Your task to perform on an android device: Turn off the flashlight Image 0: 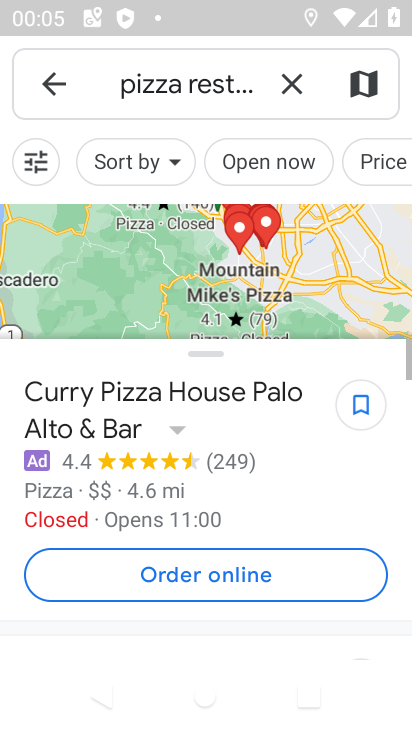
Step 0: click (272, 21)
Your task to perform on an android device: Turn off the flashlight Image 1: 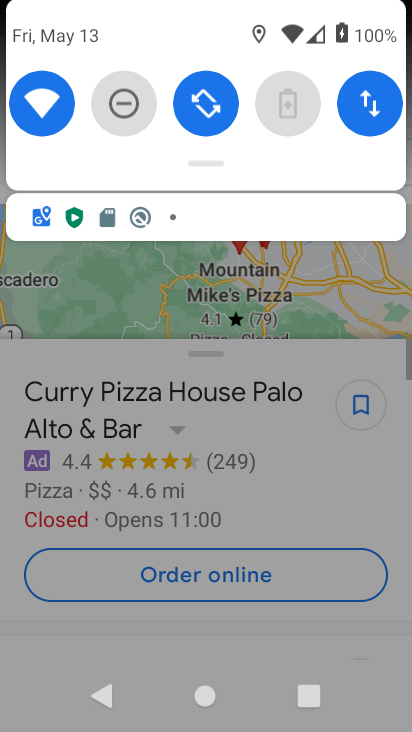
Step 1: drag from (272, 21) to (172, 607)
Your task to perform on an android device: Turn off the flashlight Image 2: 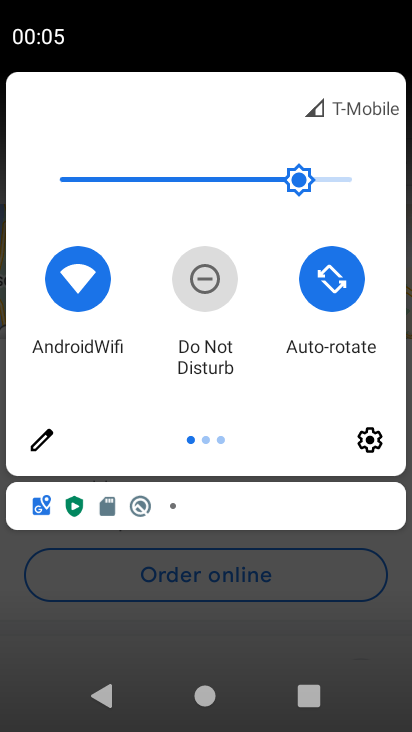
Step 2: click (367, 439)
Your task to perform on an android device: Turn off the flashlight Image 3: 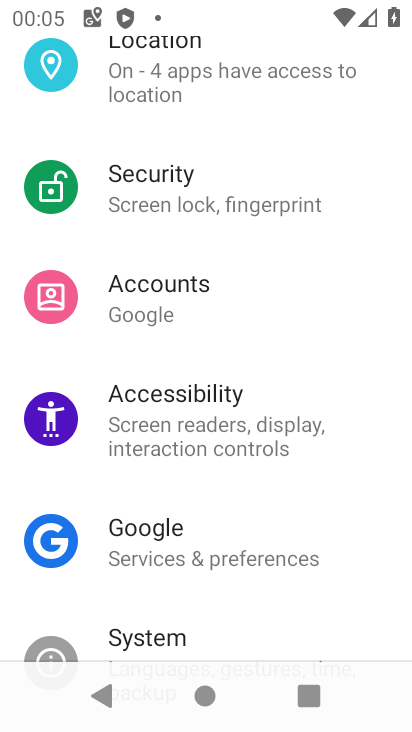
Step 3: task complete